Your task to perform on an android device: add a label to a message in the gmail app Image 0: 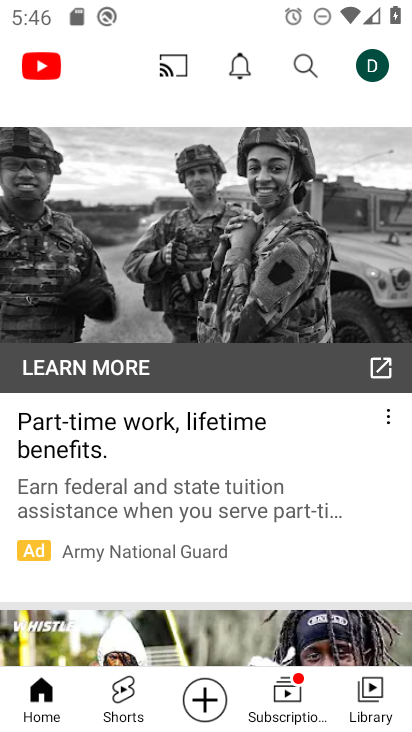
Step 0: press home button
Your task to perform on an android device: add a label to a message in the gmail app Image 1: 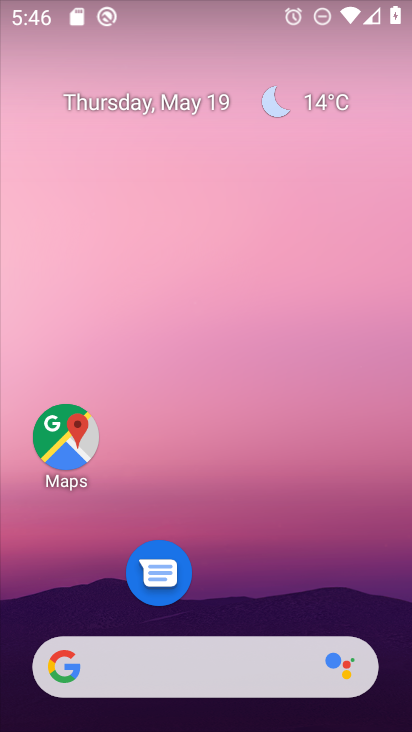
Step 1: drag from (238, 610) to (236, 116)
Your task to perform on an android device: add a label to a message in the gmail app Image 2: 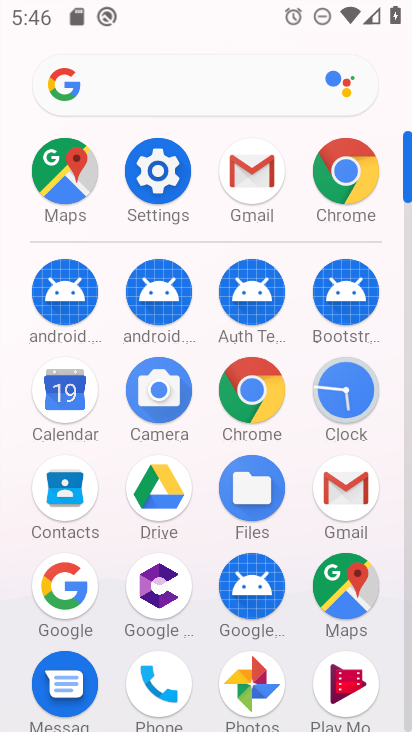
Step 2: click (250, 180)
Your task to perform on an android device: add a label to a message in the gmail app Image 3: 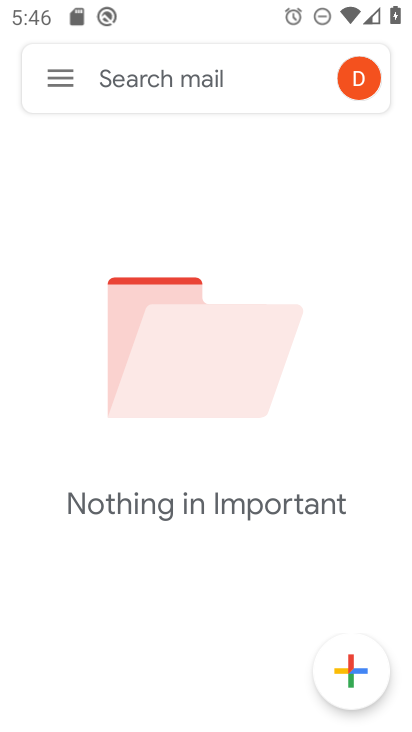
Step 3: click (67, 81)
Your task to perform on an android device: add a label to a message in the gmail app Image 4: 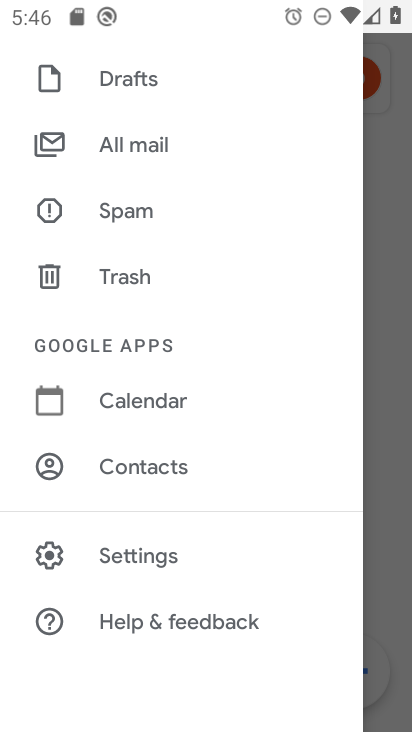
Step 4: click (149, 154)
Your task to perform on an android device: add a label to a message in the gmail app Image 5: 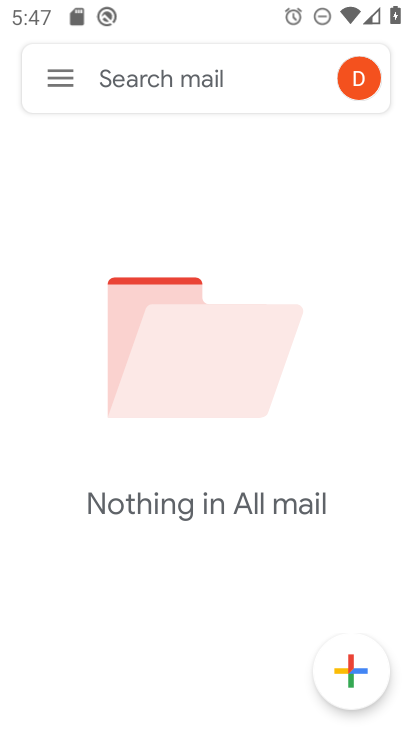
Step 5: task complete